Your task to perform on an android device: search for starred emails in the gmail app Image 0: 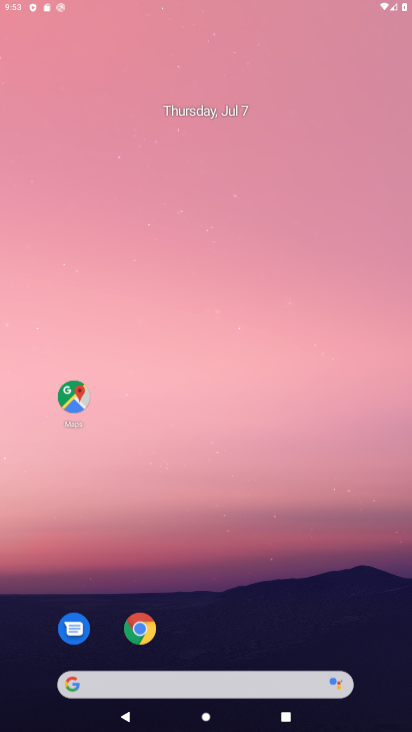
Step 0: press home button
Your task to perform on an android device: search for starred emails in the gmail app Image 1: 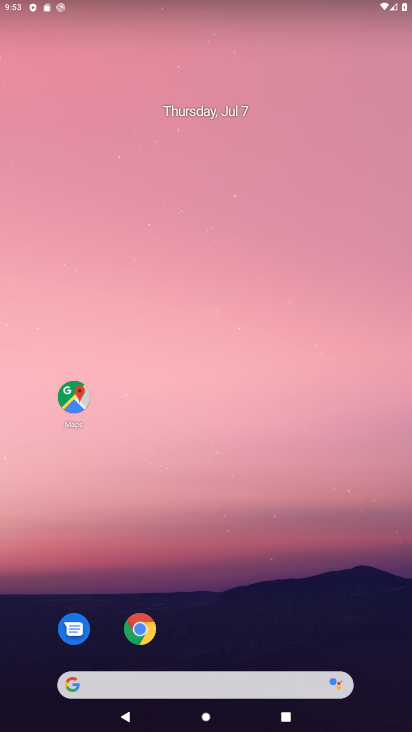
Step 1: drag from (266, 623) to (211, 421)
Your task to perform on an android device: search for starred emails in the gmail app Image 2: 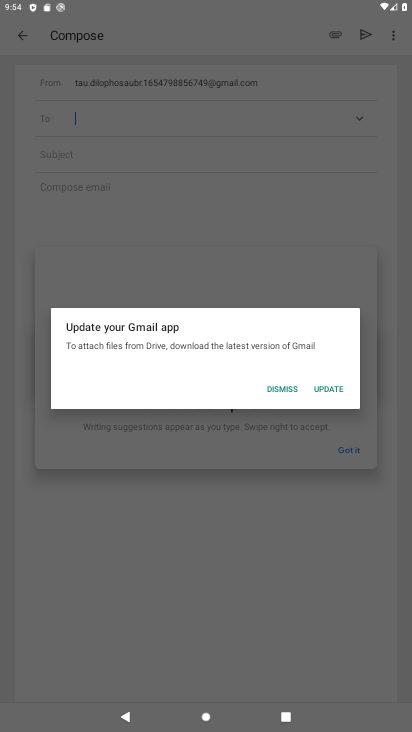
Step 2: press home button
Your task to perform on an android device: search for starred emails in the gmail app Image 3: 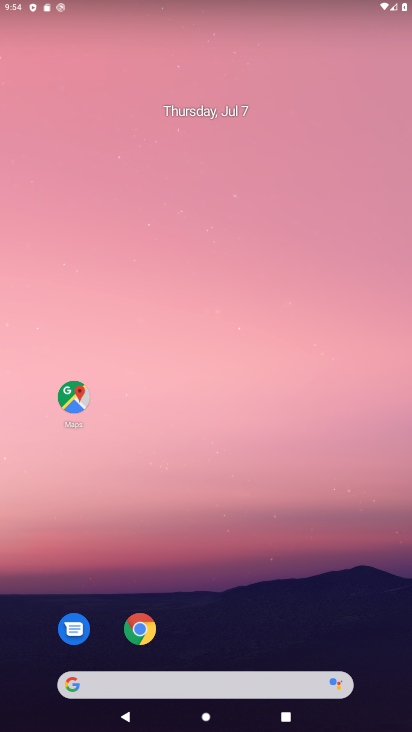
Step 3: drag from (218, 659) to (251, 239)
Your task to perform on an android device: search for starred emails in the gmail app Image 4: 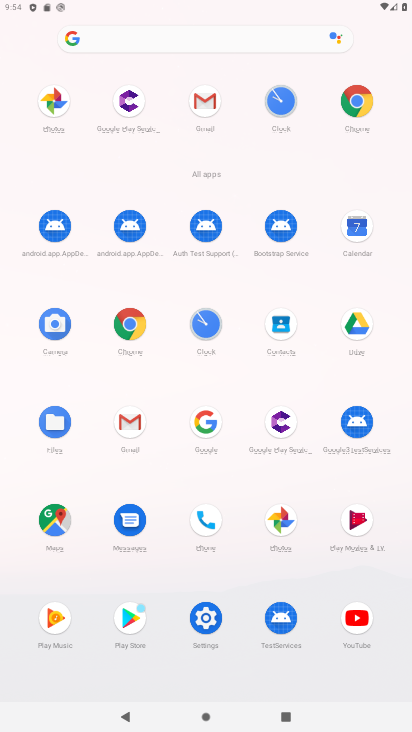
Step 4: click (209, 109)
Your task to perform on an android device: search for starred emails in the gmail app Image 5: 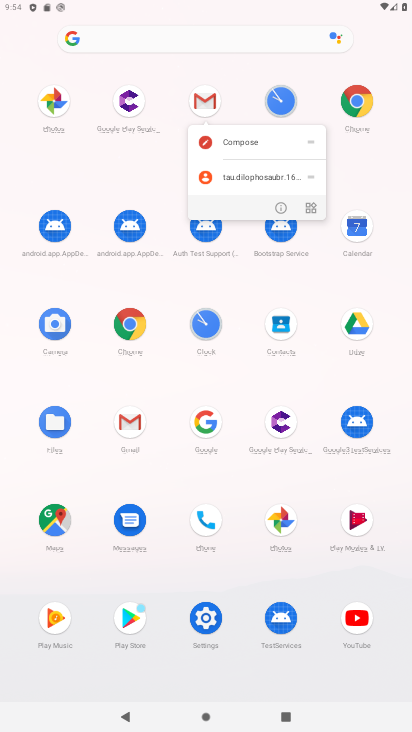
Step 5: click (208, 98)
Your task to perform on an android device: search for starred emails in the gmail app Image 6: 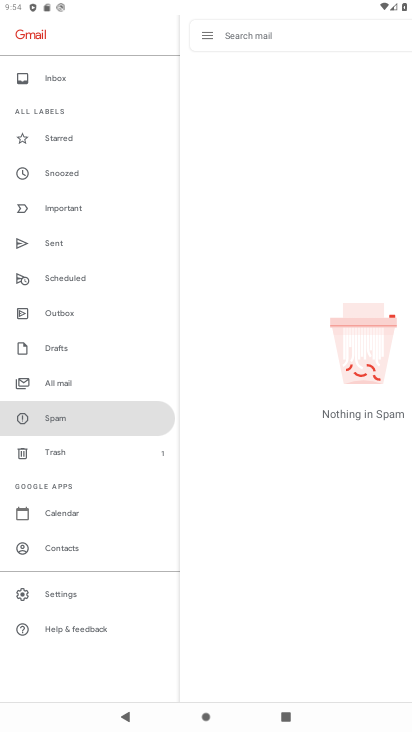
Step 6: click (55, 137)
Your task to perform on an android device: search for starred emails in the gmail app Image 7: 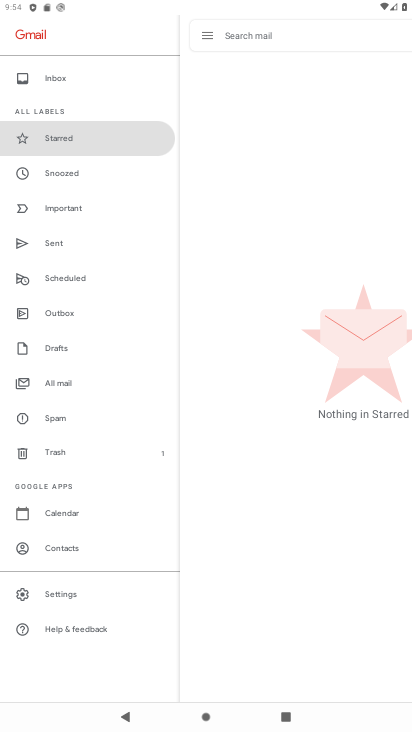
Step 7: task complete